Your task to perform on an android device: open the mobile data screen to see how much data has been used Image 0: 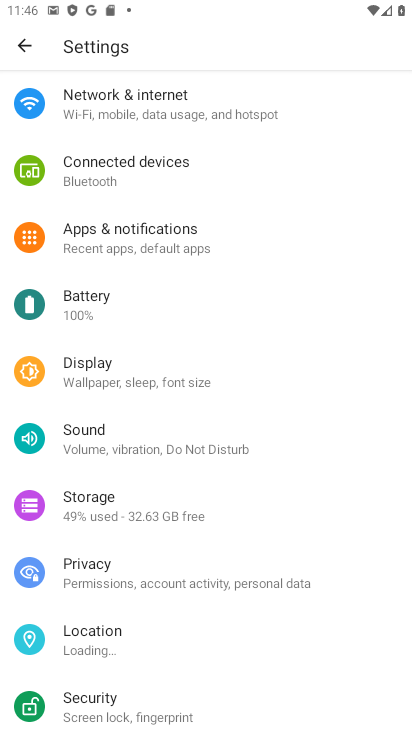
Step 0: press home button
Your task to perform on an android device: open the mobile data screen to see how much data has been used Image 1: 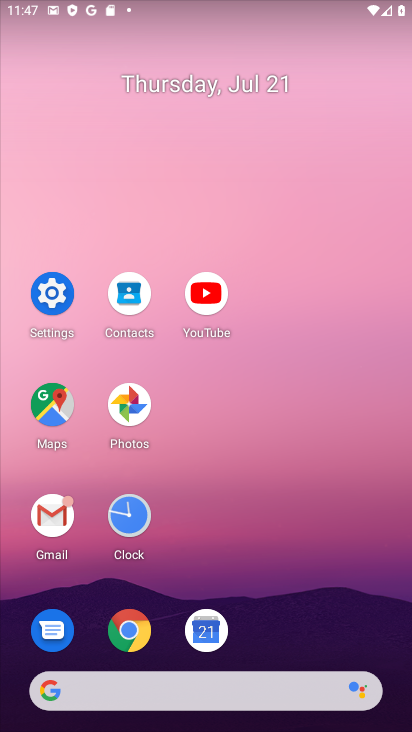
Step 1: click (54, 290)
Your task to perform on an android device: open the mobile data screen to see how much data has been used Image 2: 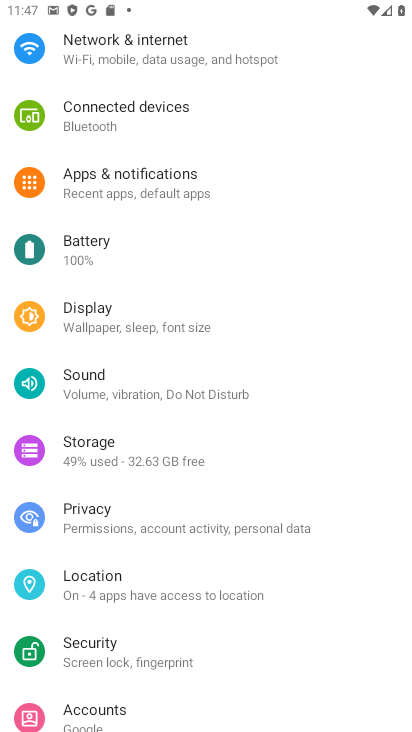
Step 2: click (90, 35)
Your task to perform on an android device: open the mobile data screen to see how much data has been used Image 3: 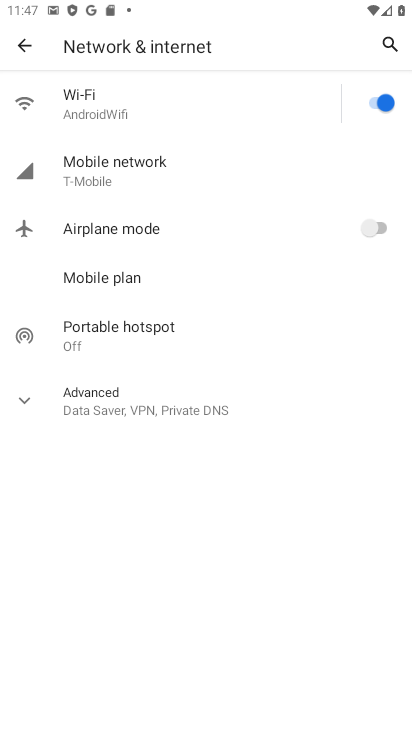
Step 3: click (119, 165)
Your task to perform on an android device: open the mobile data screen to see how much data has been used Image 4: 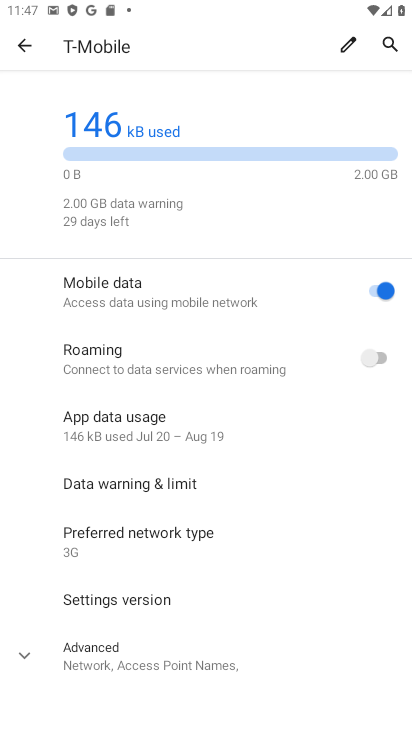
Step 4: task complete